Your task to perform on an android device: turn on priority inbox in the gmail app Image 0: 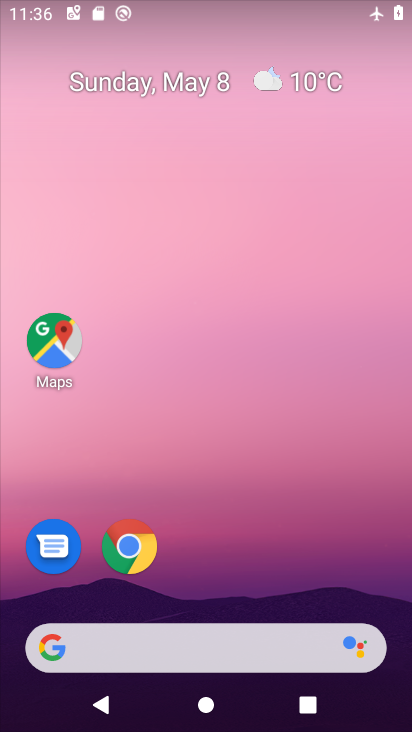
Step 0: drag from (382, 604) to (312, 40)
Your task to perform on an android device: turn on priority inbox in the gmail app Image 1: 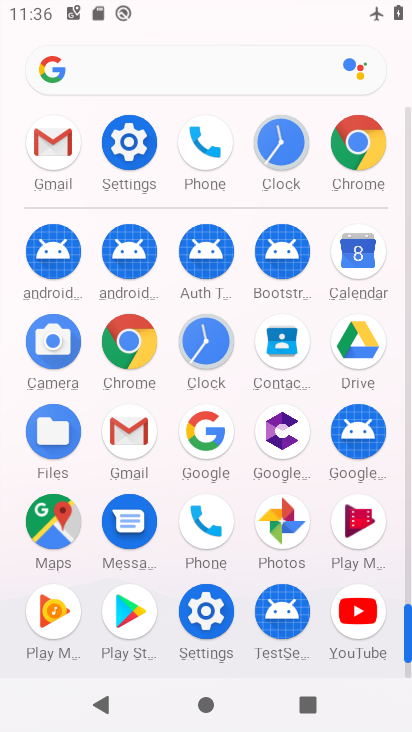
Step 1: click (122, 427)
Your task to perform on an android device: turn on priority inbox in the gmail app Image 2: 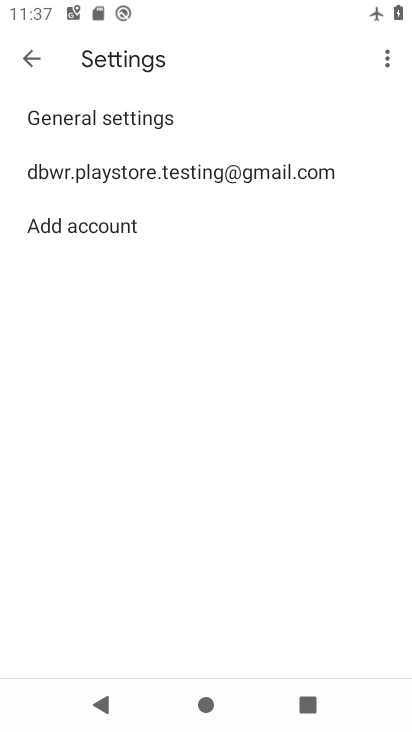
Step 2: click (200, 172)
Your task to perform on an android device: turn on priority inbox in the gmail app Image 3: 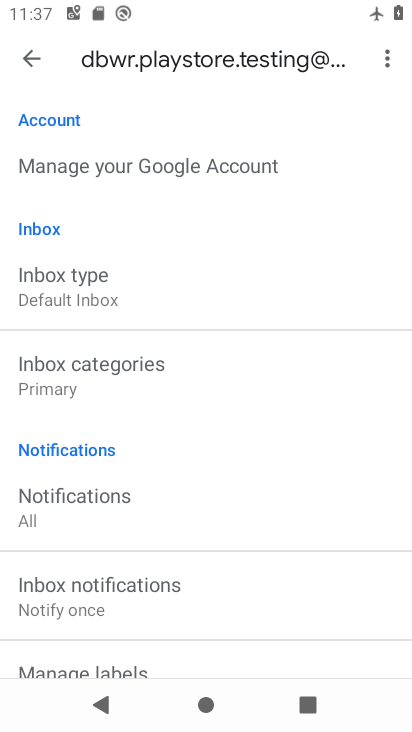
Step 3: click (40, 291)
Your task to perform on an android device: turn on priority inbox in the gmail app Image 4: 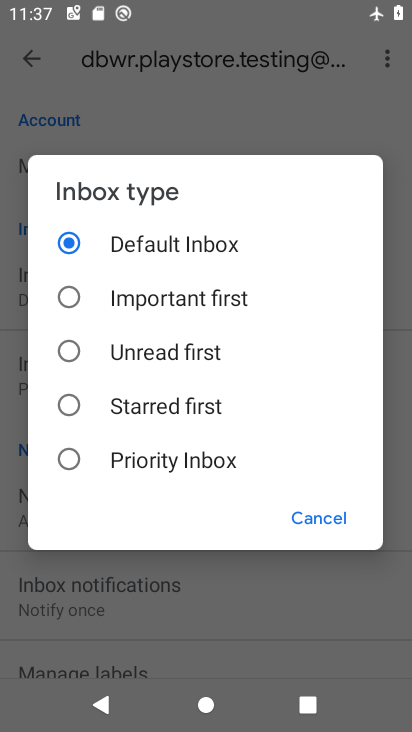
Step 4: click (68, 453)
Your task to perform on an android device: turn on priority inbox in the gmail app Image 5: 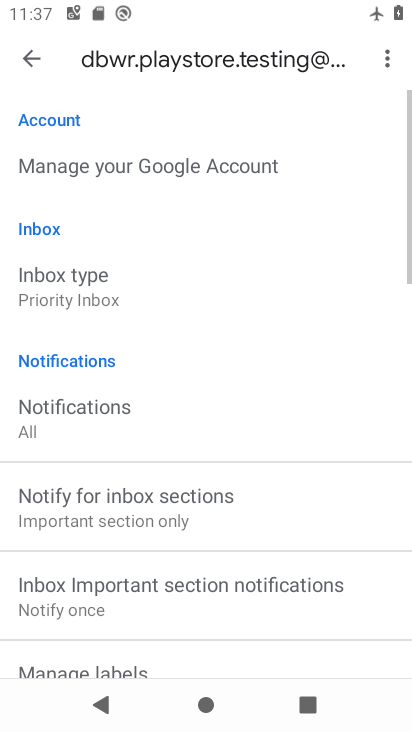
Step 5: task complete